Your task to perform on an android device: turn off translation in the chrome app Image 0: 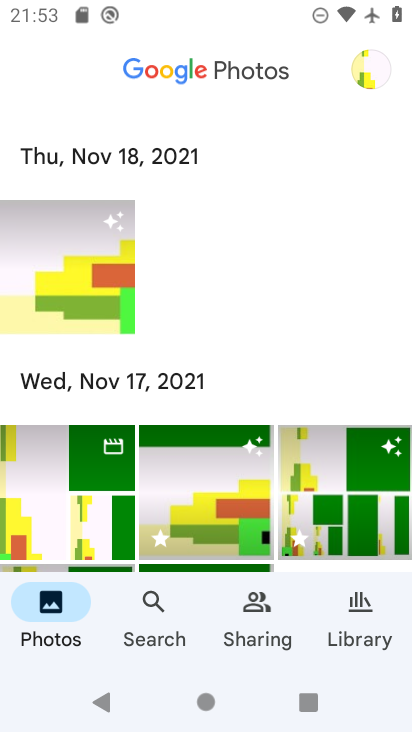
Step 0: press home button
Your task to perform on an android device: turn off translation in the chrome app Image 1: 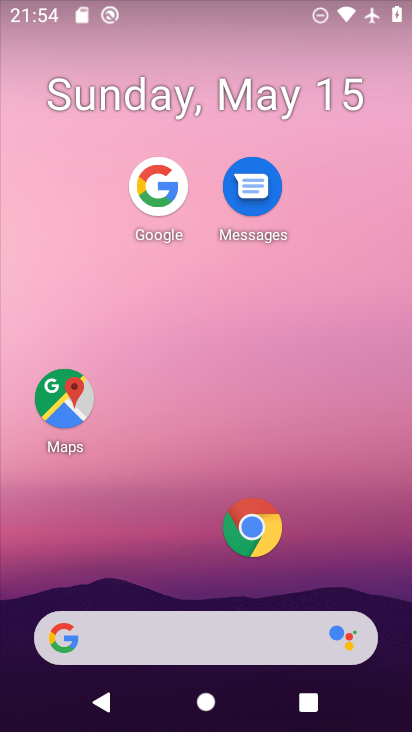
Step 1: click (247, 521)
Your task to perform on an android device: turn off translation in the chrome app Image 2: 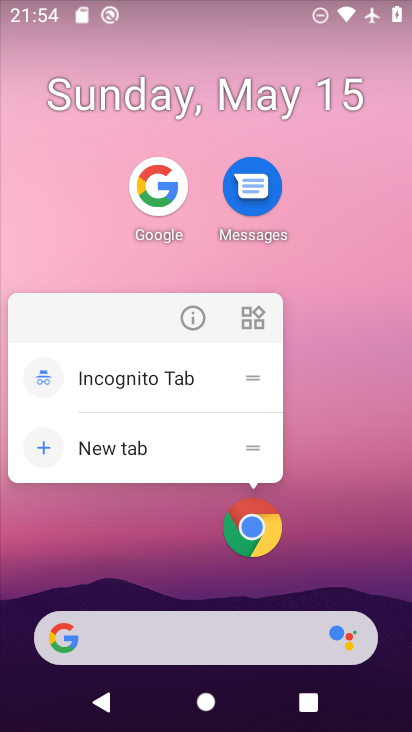
Step 2: click (254, 538)
Your task to perform on an android device: turn off translation in the chrome app Image 3: 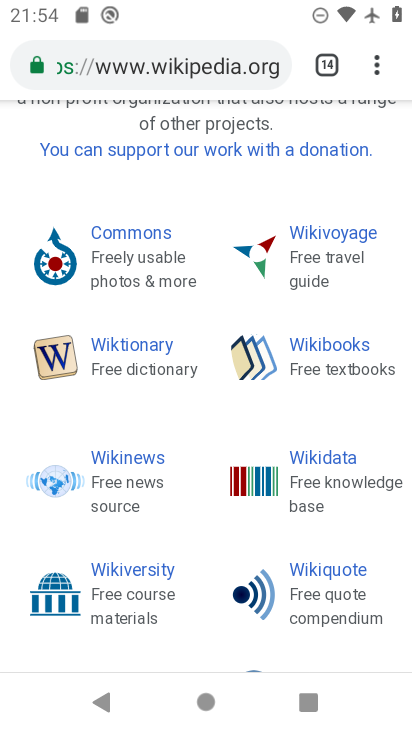
Step 3: drag from (373, 61) to (230, 573)
Your task to perform on an android device: turn off translation in the chrome app Image 4: 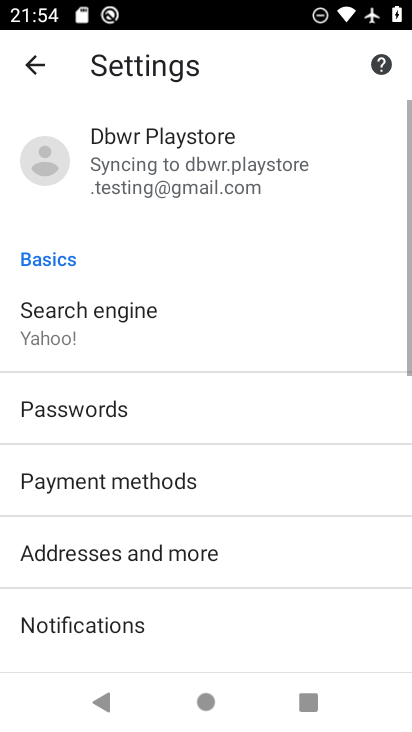
Step 4: drag from (184, 608) to (318, 244)
Your task to perform on an android device: turn off translation in the chrome app Image 5: 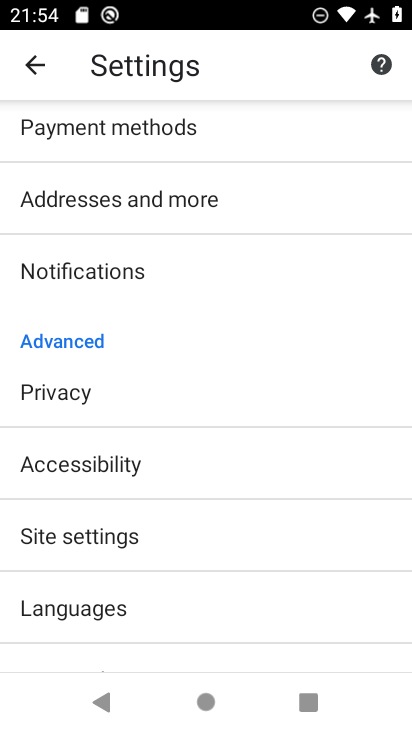
Step 5: click (110, 607)
Your task to perform on an android device: turn off translation in the chrome app Image 6: 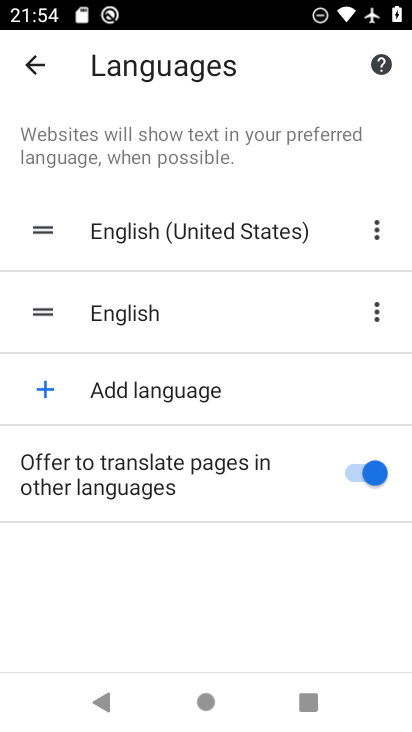
Step 6: click (362, 467)
Your task to perform on an android device: turn off translation in the chrome app Image 7: 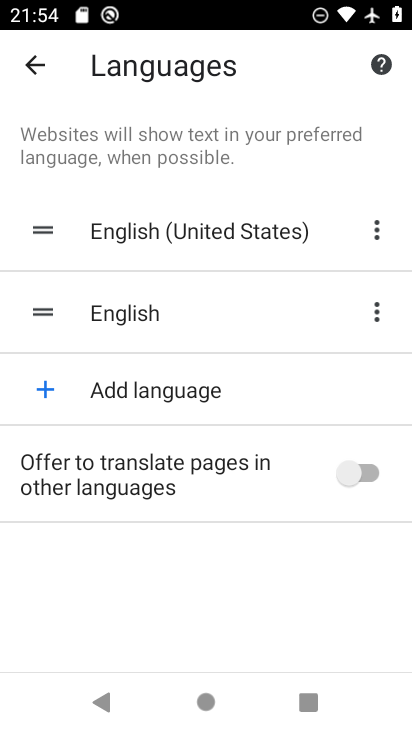
Step 7: task complete